Your task to perform on an android device: open device folders in google photos Image 0: 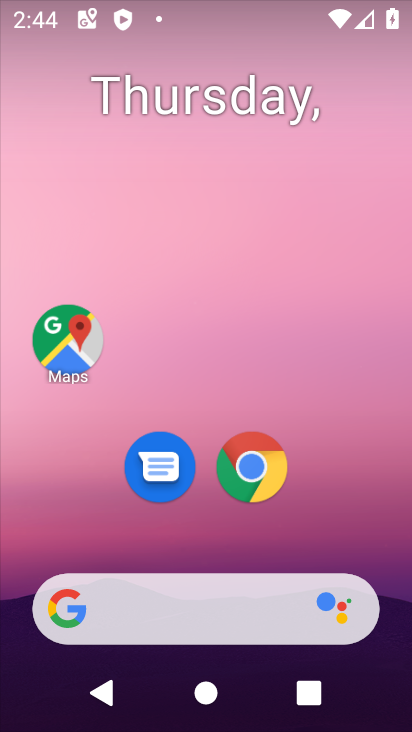
Step 0: click (247, 165)
Your task to perform on an android device: open device folders in google photos Image 1: 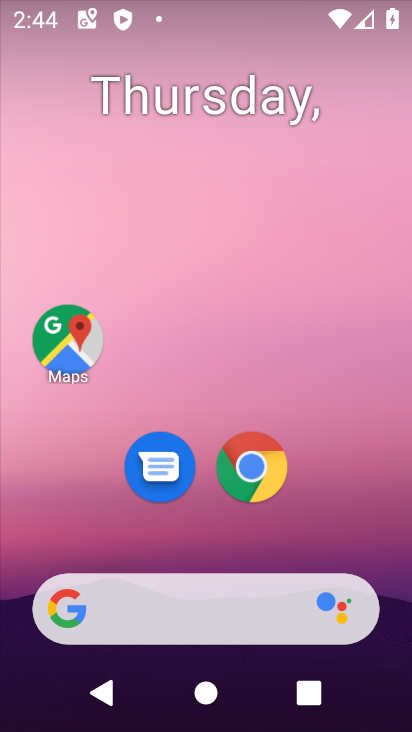
Step 1: drag from (225, 548) to (263, 184)
Your task to perform on an android device: open device folders in google photos Image 2: 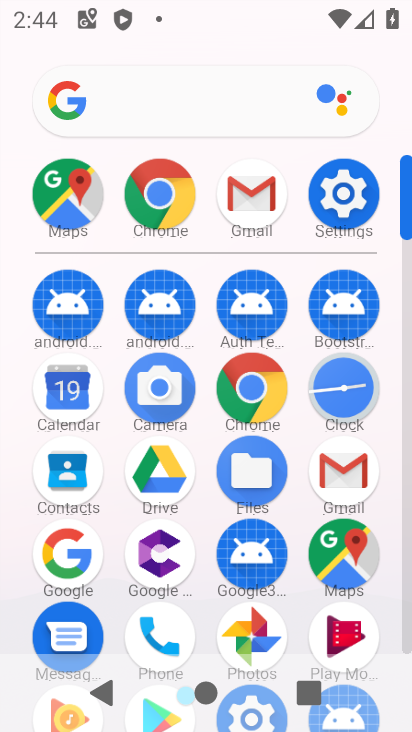
Step 2: click (271, 631)
Your task to perform on an android device: open device folders in google photos Image 3: 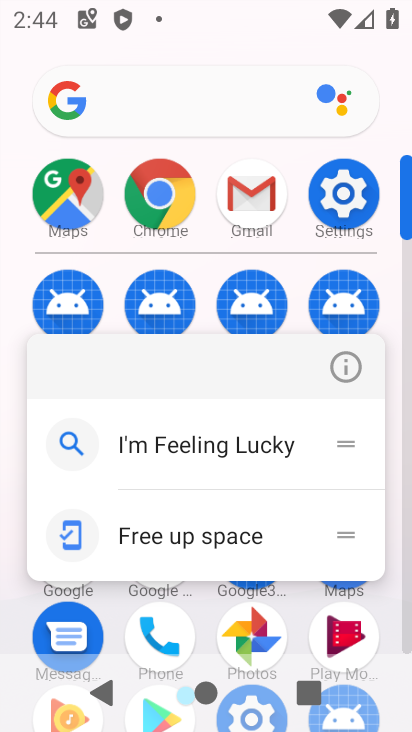
Step 3: click (341, 360)
Your task to perform on an android device: open device folders in google photos Image 4: 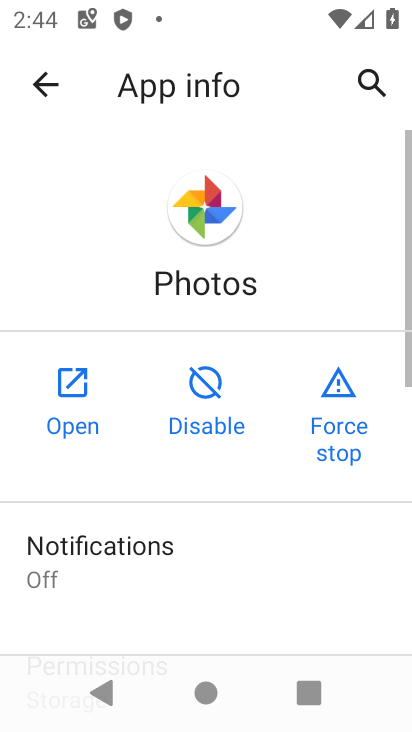
Step 4: click (65, 404)
Your task to perform on an android device: open device folders in google photos Image 5: 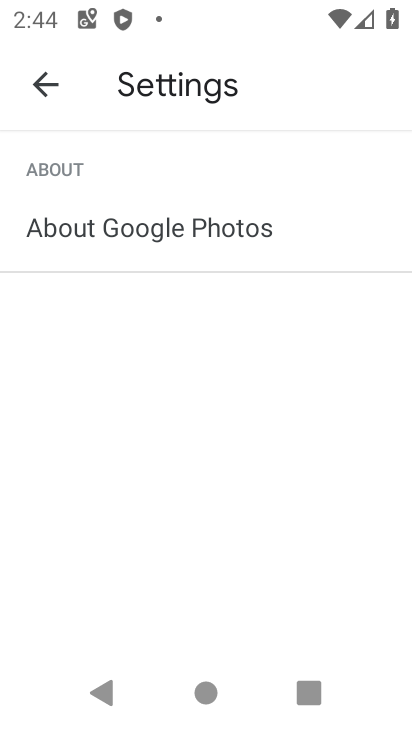
Step 5: click (51, 72)
Your task to perform on an android device: open device folders in google photos Image 6: 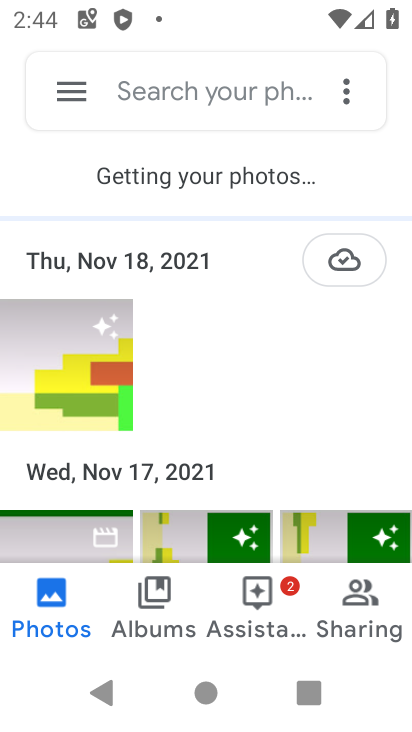
Step 6: click (77, 95)
Your task to perform on an android device: open device folders in google photos Image 7: 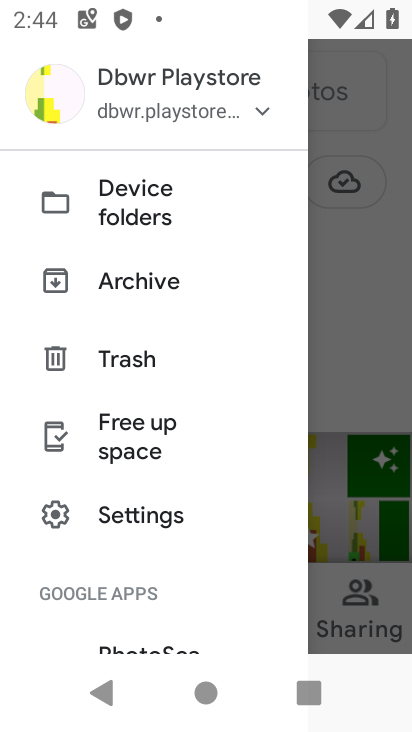
Step 7: click (140, 212)
Your task to perform on an android device: open device folders in google photos Image 8: 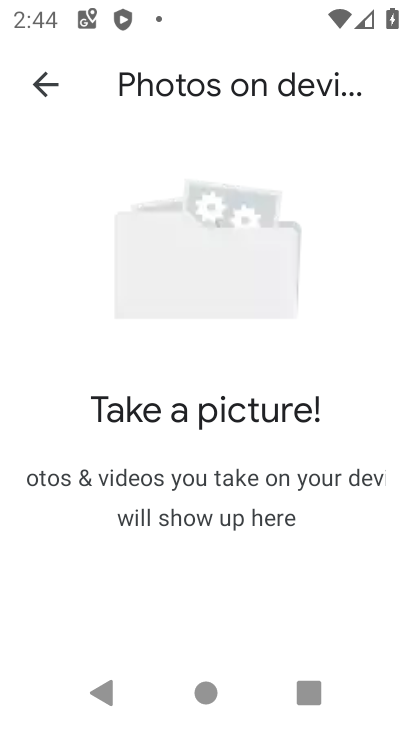
Step 8: task complete